Your task to perform on an android device: find which apps use the phone's location Image 0: 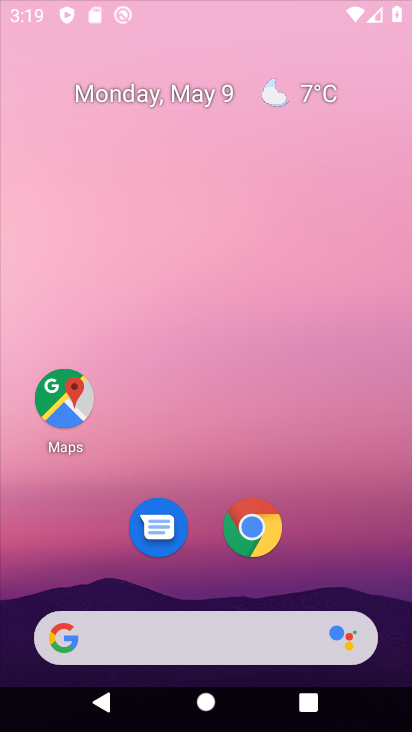
Step 0: drag from (346, 534) to (207, 37)
Your task to perform on an android device: find which apps use the phone's location Image 1: 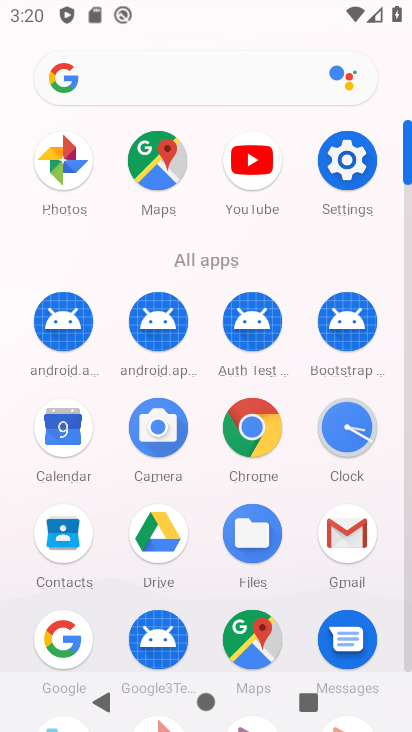
Step 1: click (343, 176)
Your task to perform on an android device: find which apps use the phone's location Image 2: 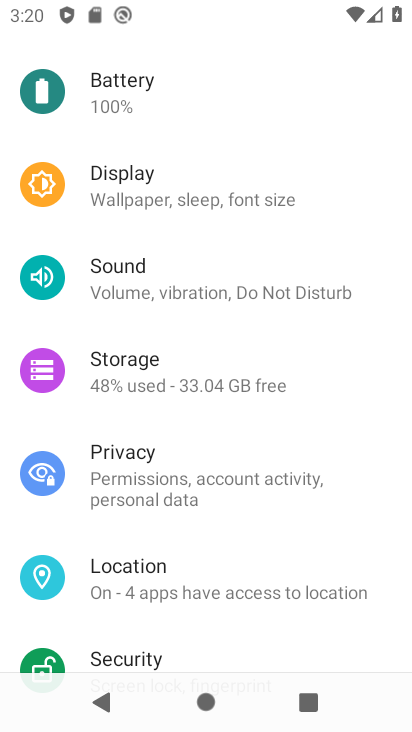
Step 2: click (219, 597)
Your task to perform on an android device: find which apps use the phone's location Image 3: 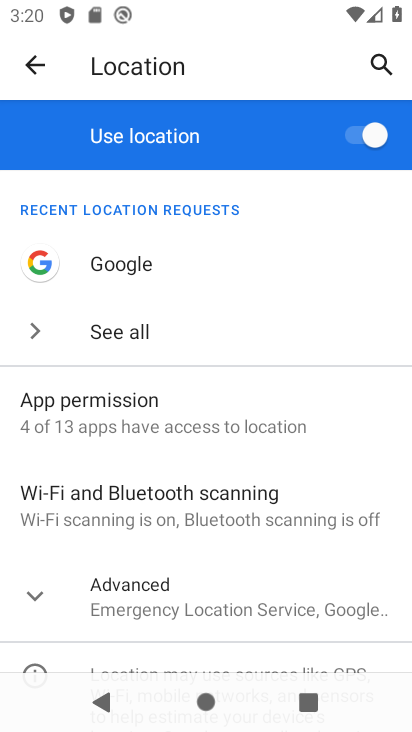
Step 3: drag from (260, 568) to (227, 289)
Your task to perform on an android device: find which apps use the phone's location Image 4: 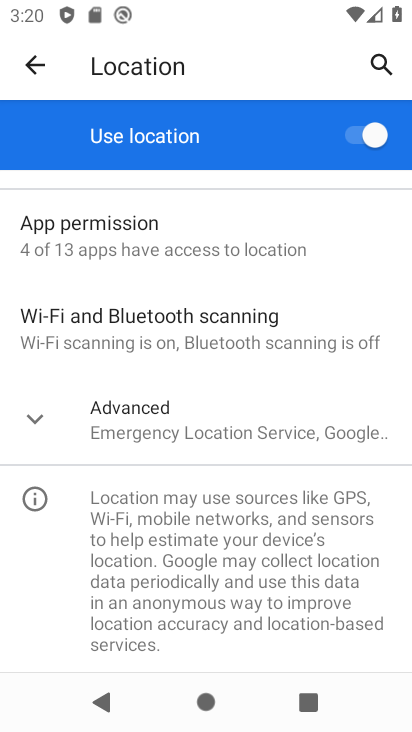
Step 4: click (236, 231)
Your task to perform on an android device: find which apps use the phone's location Image 5: 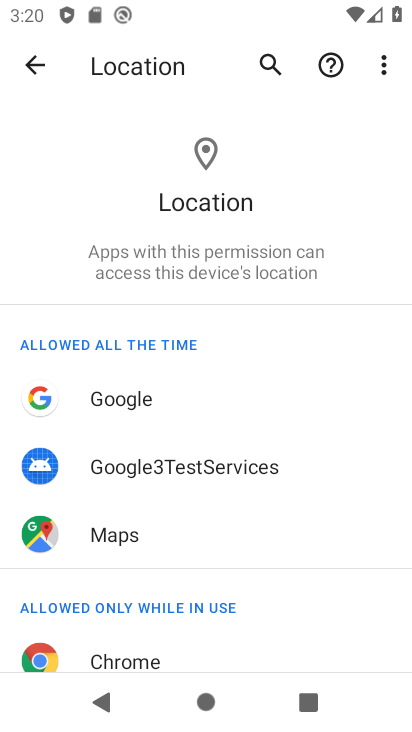
Step 5: task complete